Your task to perform on an android device: add a contact in the contacts app Image 0: 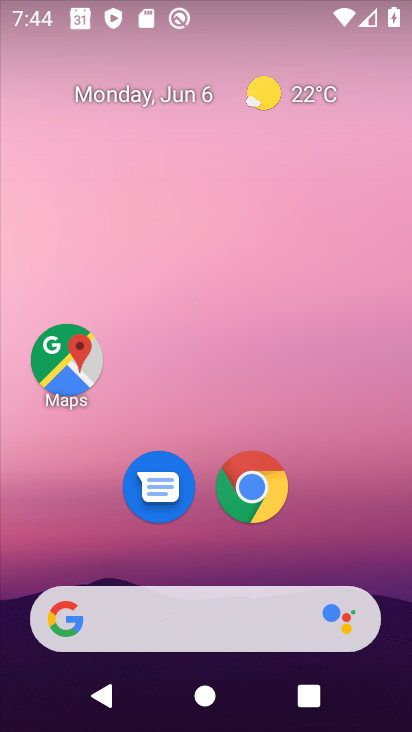
Step 0: drag from (358, 534) to (353, 167)
Your task to perform on an android device: add a contact in the contacts app Image 1: 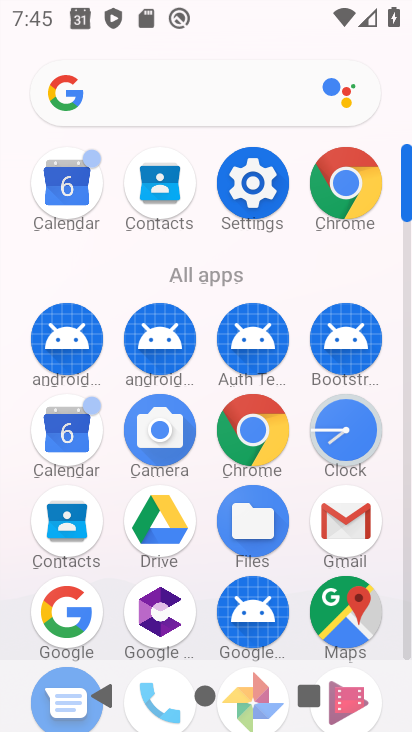
Step 1: click (66, 536)
Your task to perform on an android device: add a contact in the contacts app Image 2: 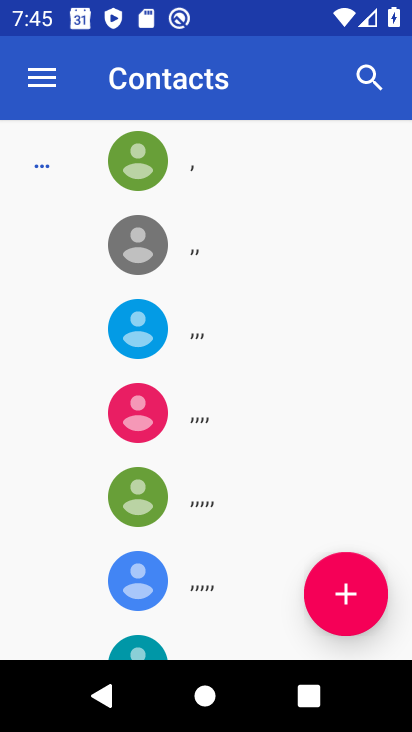
Step 2: click (334, 584)
Your task to perform on an android device: add a contact in the contacts app Image 3: 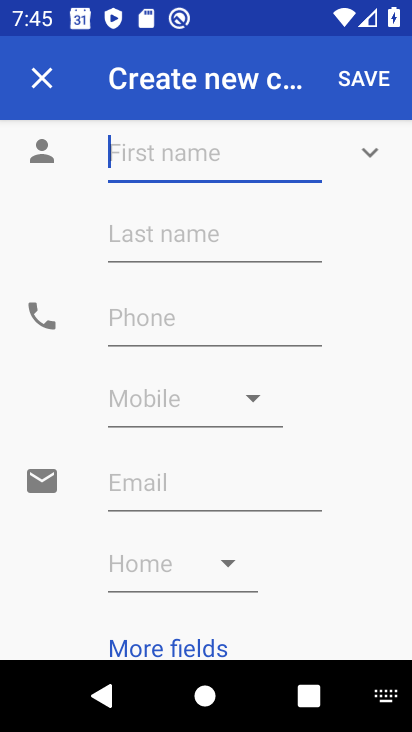
Step 3: type "shivaya"
Your task to perform on an android device: add a contact in the contacts app Image 4: 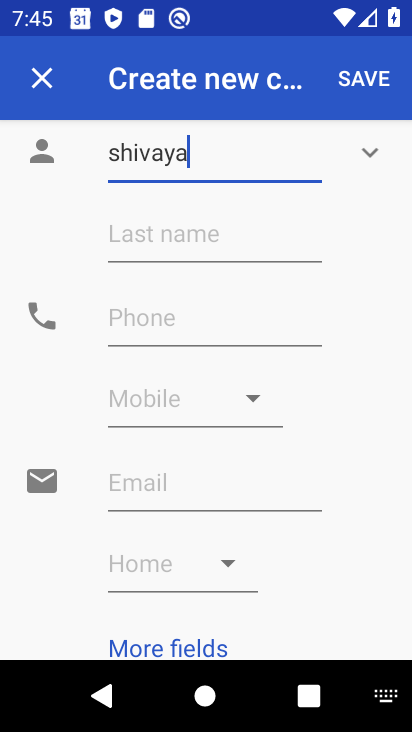
Step 4: click (267, 333)
Your task to perform on an android device: add a contact in the contacts app Image 5: 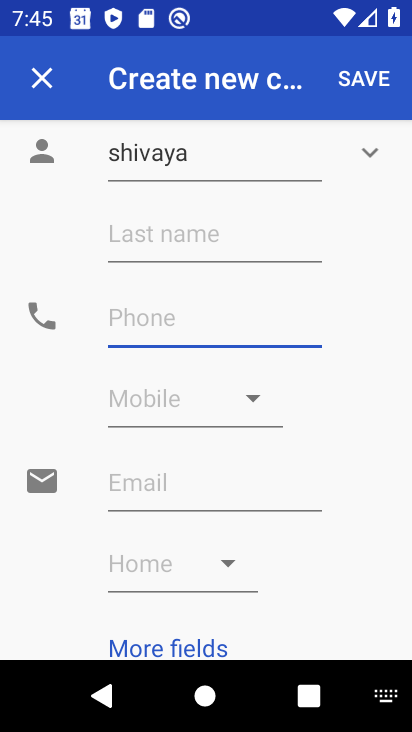
Step 5: type "98898878665"
Your task to perform on an android device: add a contact in the contacts app Image 6: 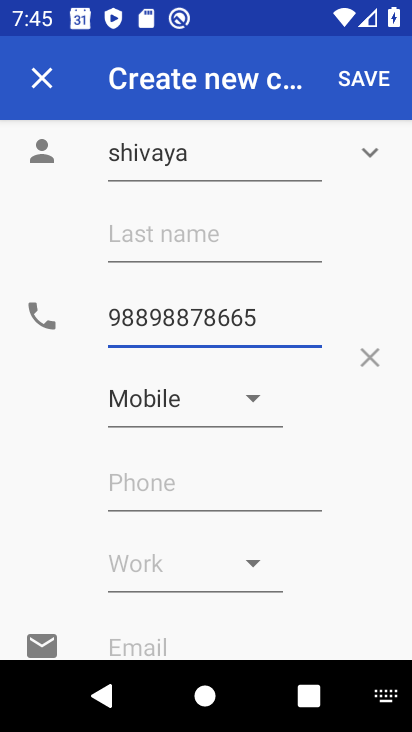
Step 6: click (374, 84)
Your task to perform on an android device: add a contact in the contacts app Image 7: 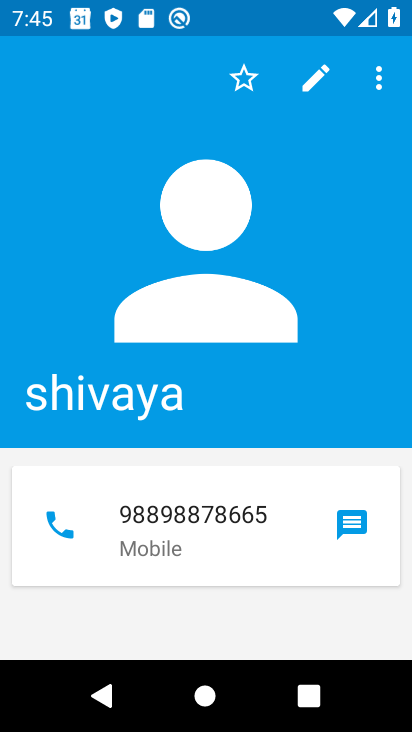
Step 7: task complete